Your task to perform on an android device: Go to notification settings Image 0: 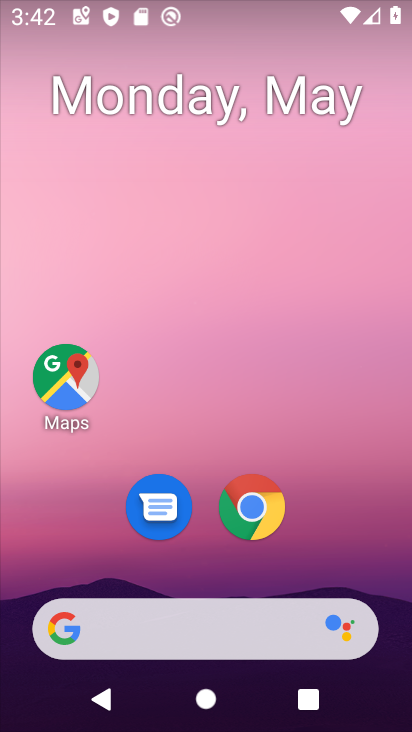
Step 0: drag from (200, 579) to (200, 65)
Your task to perform on an android device: Go to notification settings Image 1: 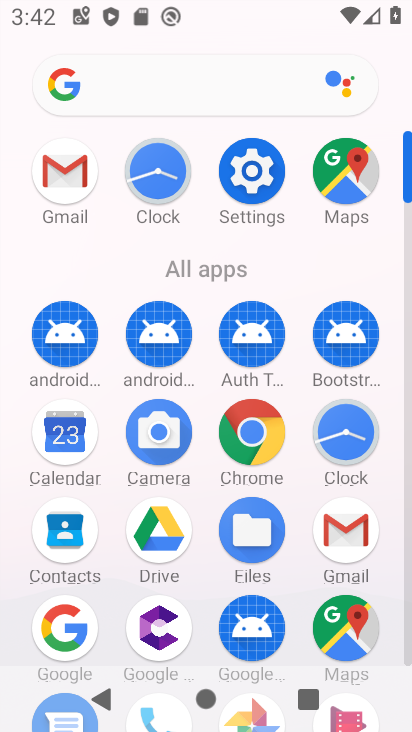
Step 1: click (261, 184)
Your task to perform on an android device: Go to notification settings Image 2: 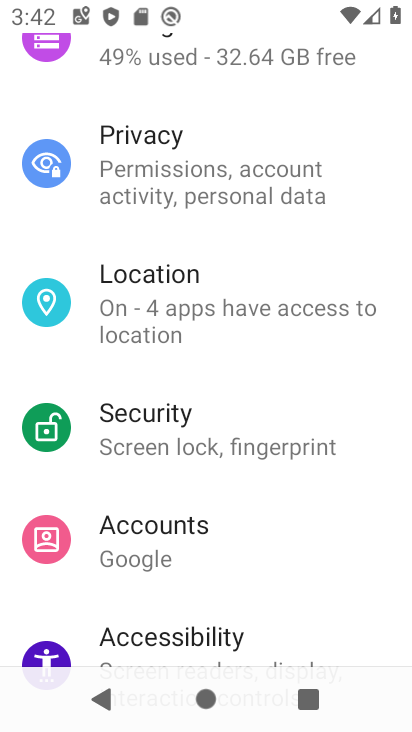
Step 2: drag from (190, 265) to (179, 607)
Your task to perform on an android device: Go to notification settings Image 3: 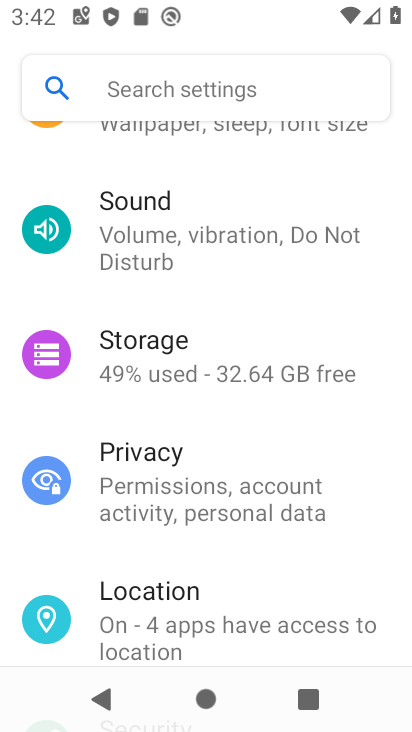
Step 3: drag from (142, 345) to (146, 625)
Your task to perform on an android device: Go to notification settings Image 4: 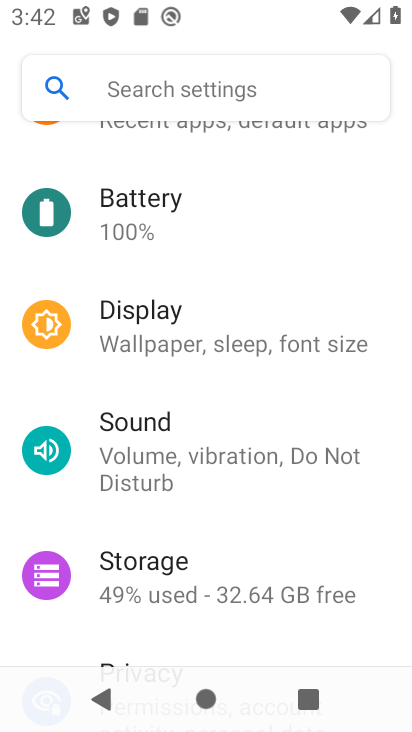
Step 4: drag from (209, 247) to (212, 594)
Your task to perform on an android device: Go to notification settings Image 5: 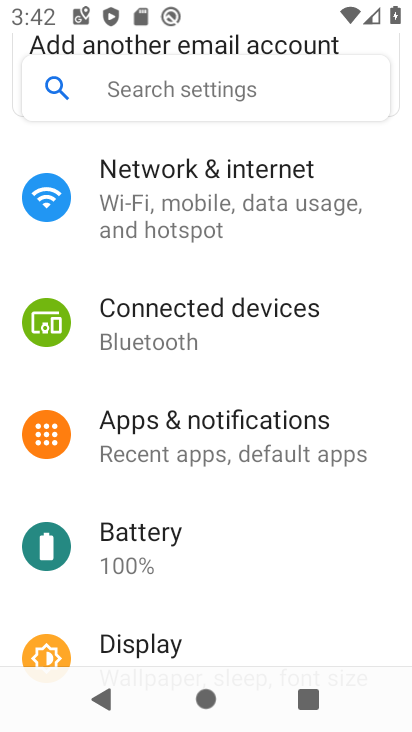
Step 5: click (157, 428)
Your task to perform on an android device: Go to notification settings Image 6: 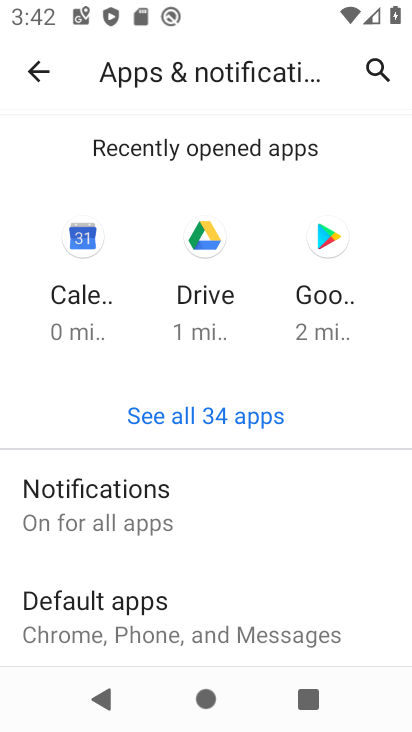
Step 6: task complete